Your task to perform on an android device: Search for Mexican restaurants on Maps Image 0: 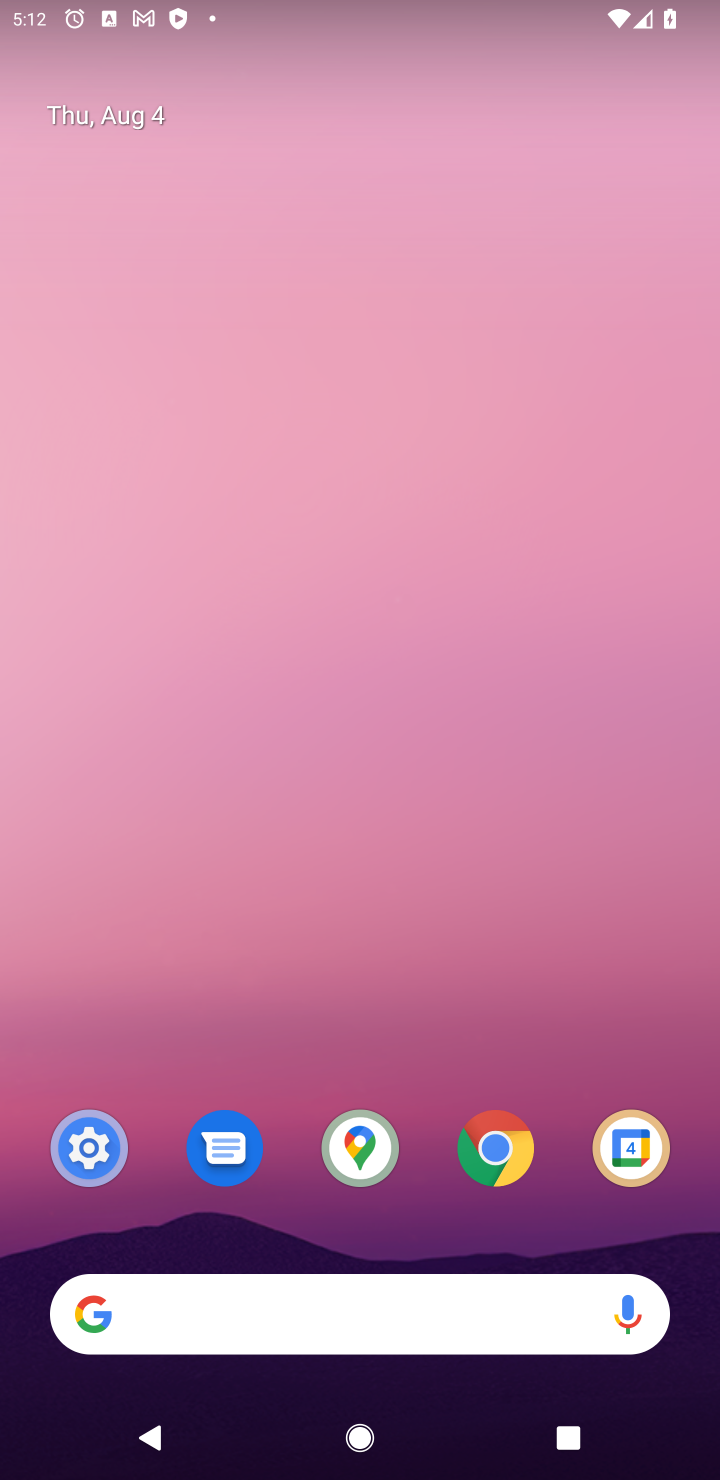
Step 0: click (355, 1149)
Your task to perform on an android device: Search for Mexican restaurants on Maps Image 1: 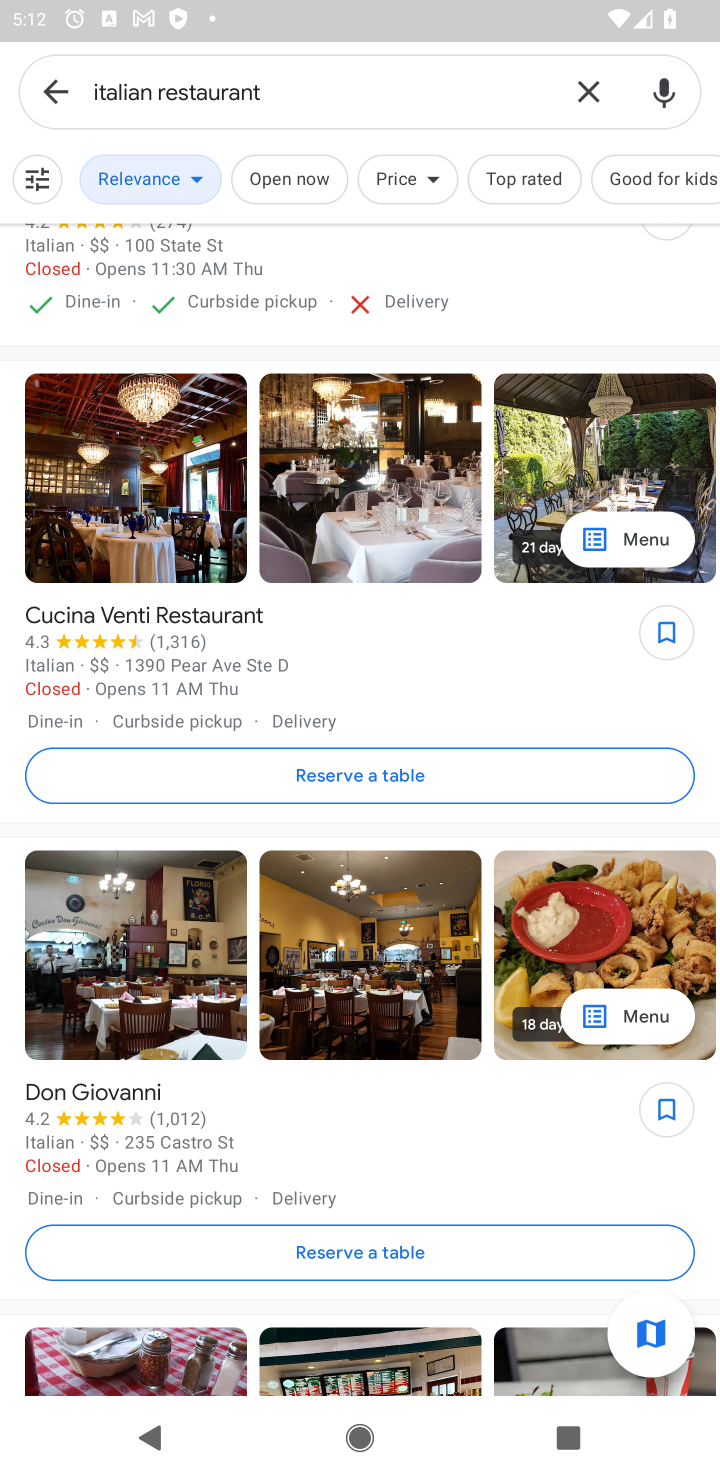
Step 1: click (583, 87)
Your task to perform on an android device: Search for Mexican restaurants on Maps Image 2: 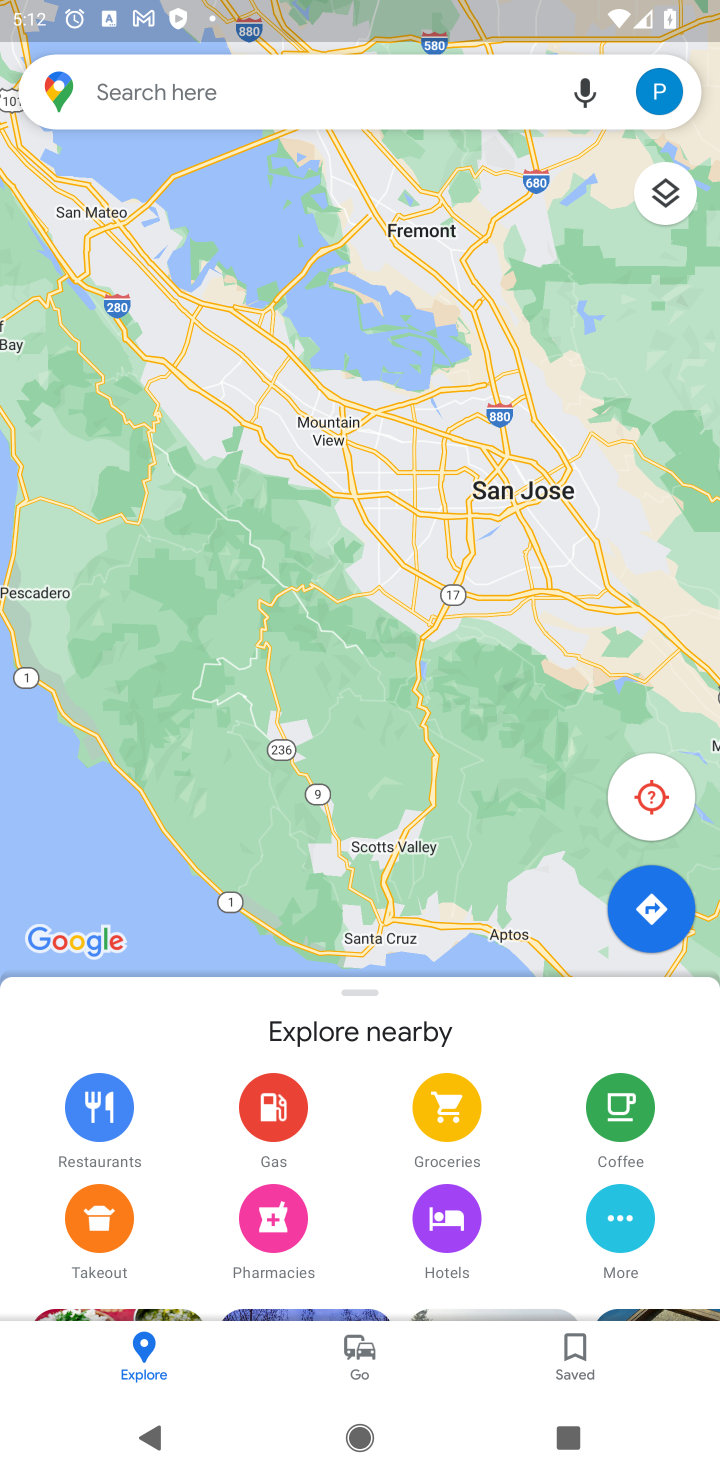
Step 2: click (210, 90)
Your task to perform on an android device: Search for Mexican restaurants on Maps Image 3: 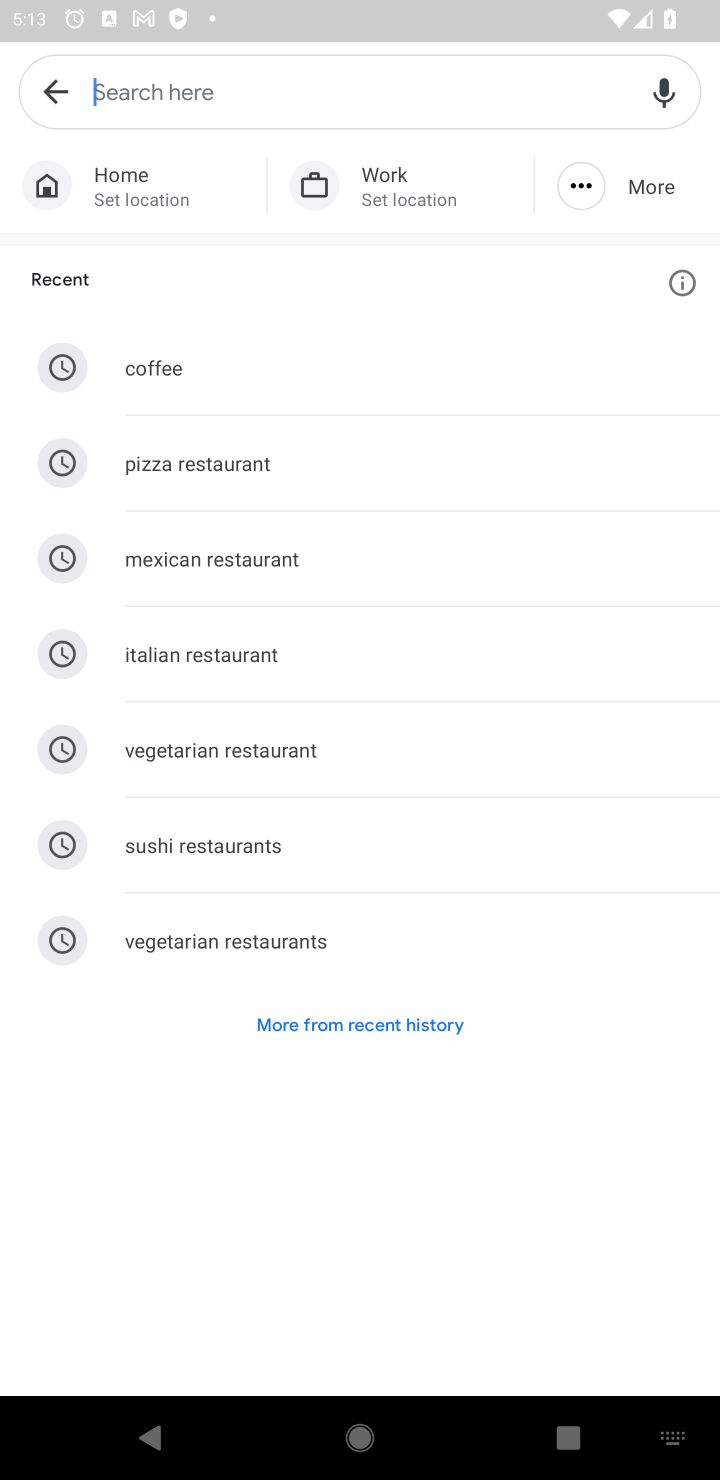
Step 3: type "Mexican restaurants"
Your task to perform on an android device: Search for Mexican restaurants on Maps Image 4: 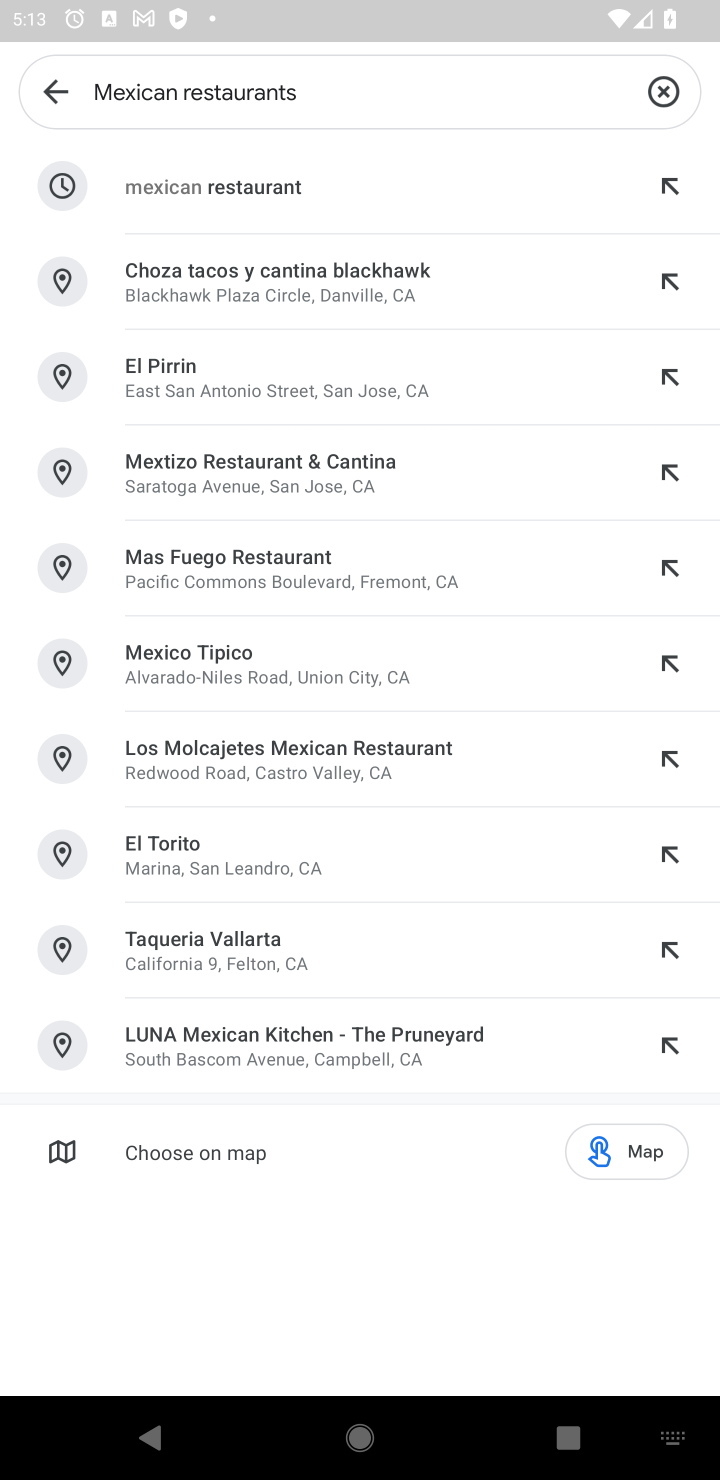
Step 4: click (250, 185)
Your task to perform on an android device: Search for Mexican restaurants on Maps Image 5: 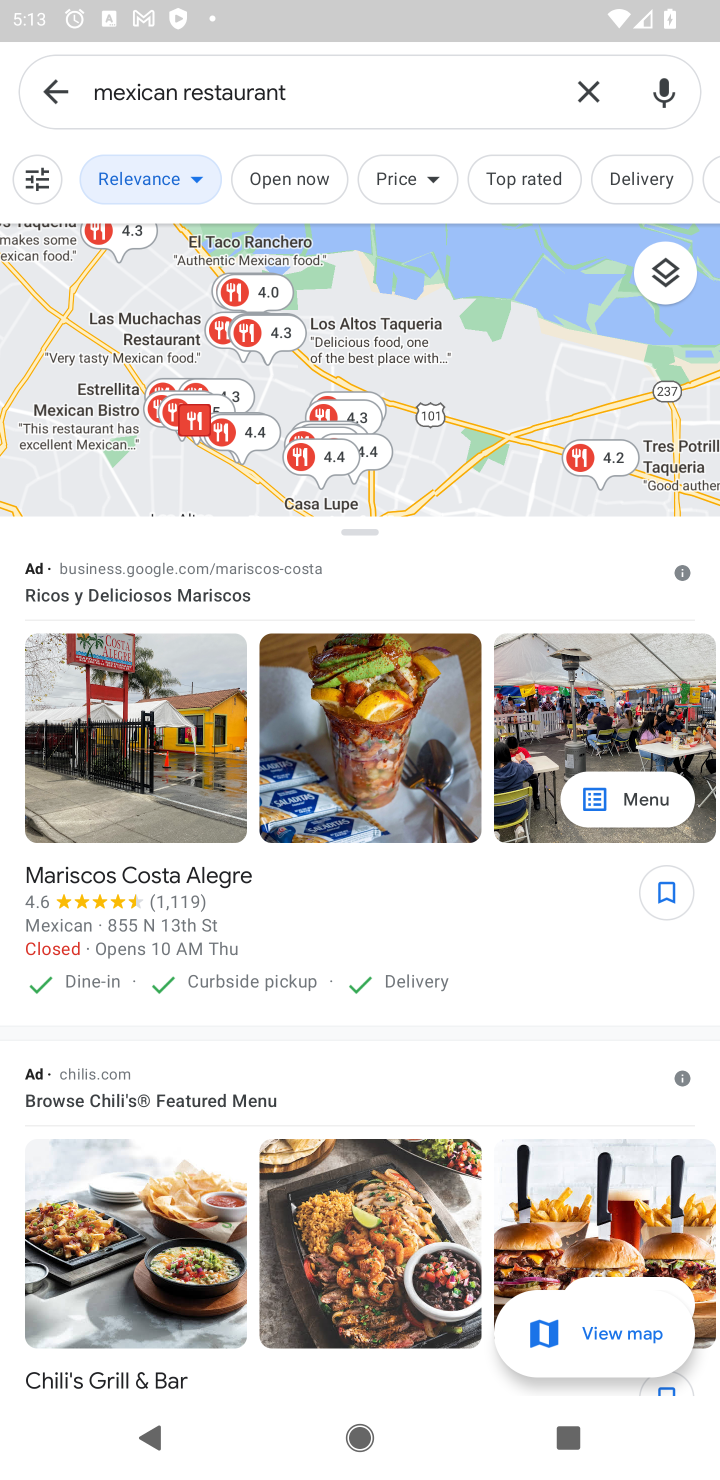
Step 5: task complete